Your task to perform on an android device: find photos in the google photos app Image 0: 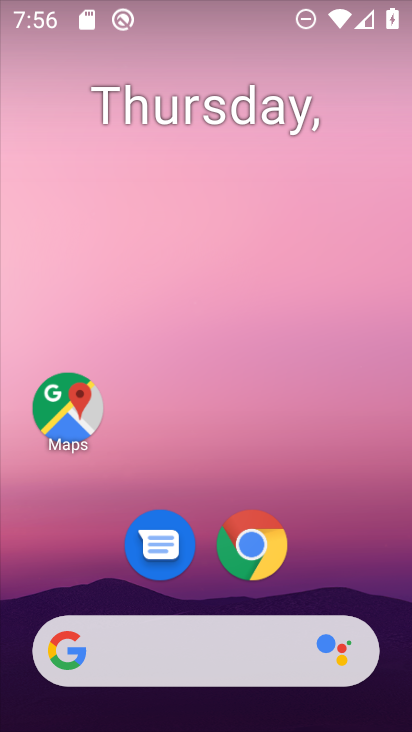
Step 0: drag from (244, 480) to (199, 8)
Your task to perform on an android device: find photos in the google photos app Image 1: 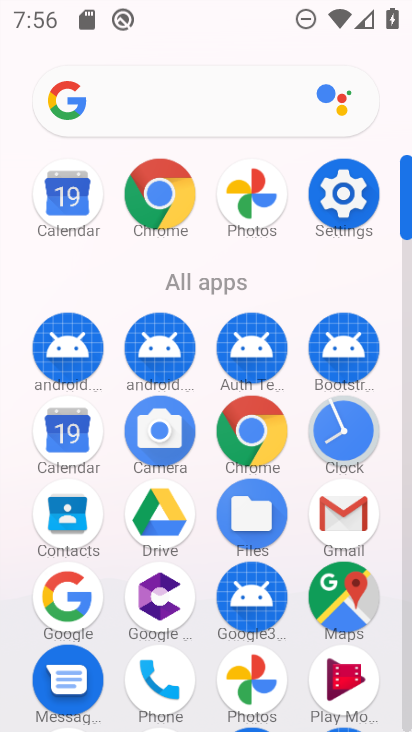
Step 1: click (251, 195)
Your task to perform on an android device: find photos in the google photos app Image 2: 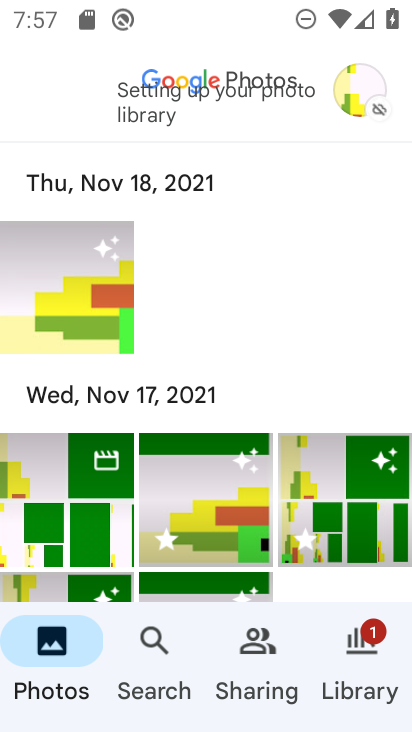
Step 2: click (87, 304)
Your task to perform on an android device: find photos in the google photos app Image 3: 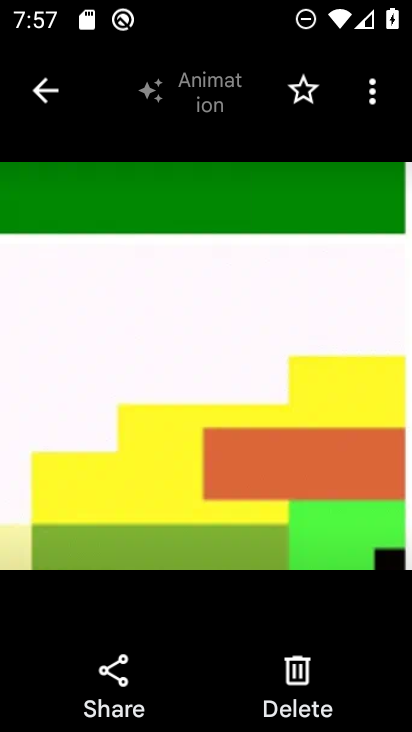
Step 3: task complete